Your task to perform on an android device: Open Reddit.com Image 0: 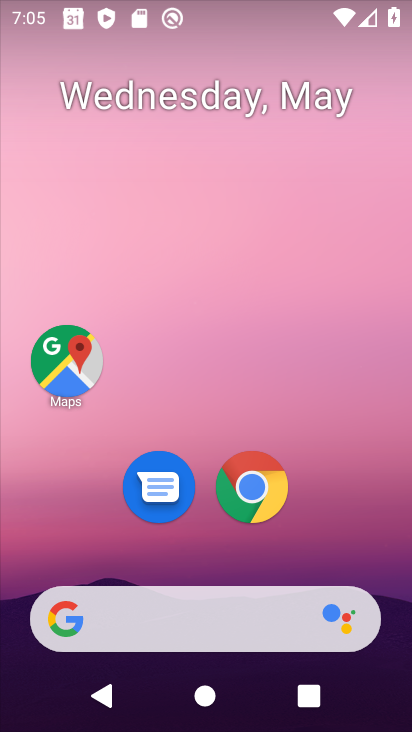
Step 0: drag from (325, 527) to (401, 23)
Your task to perform on an android device: Open Reddit.com Image 1: 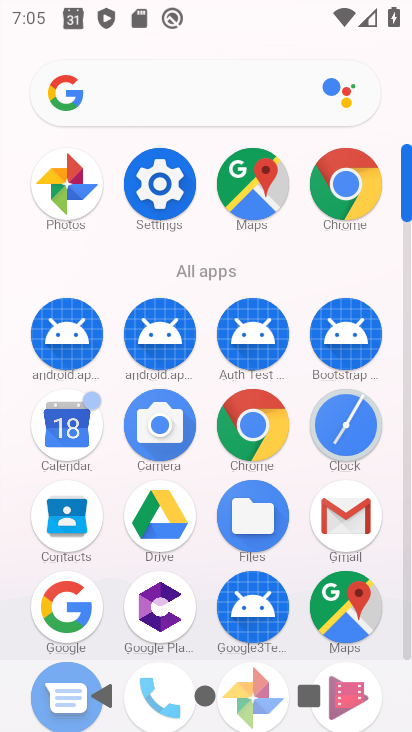
Step 1: click (373, 188)
Your task to perform on an android device: Open Reddit.com Image 2: 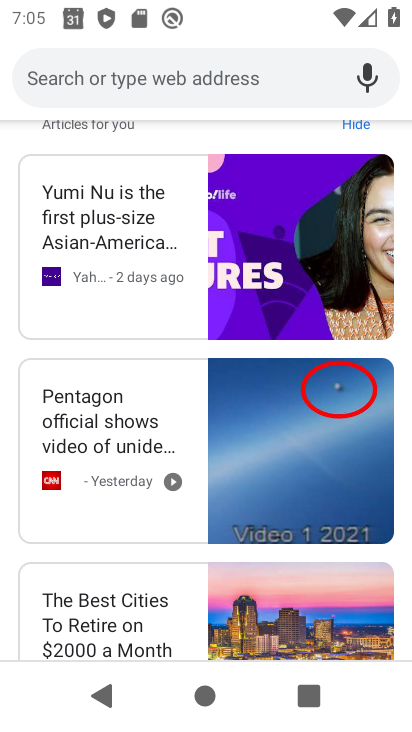
Step 2: drag from (157, 211) to (63, 554)
Your task to perform on an android device: Open Reddit.com Image 3: 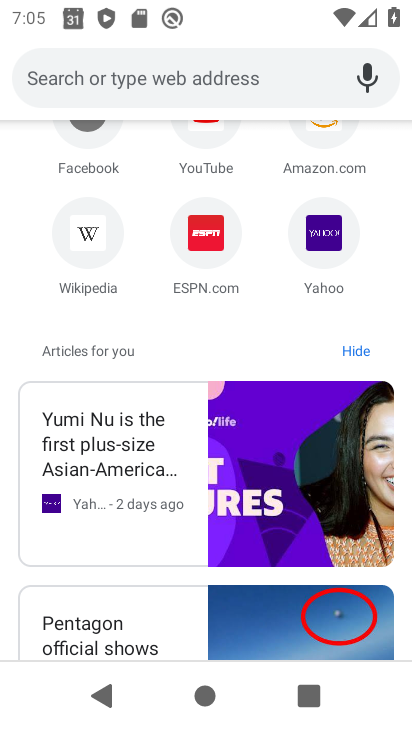
Step 3: drag from (69, 418) to (2, 579)
Your task to perform on an android device: Open Reddit.com Image 4: 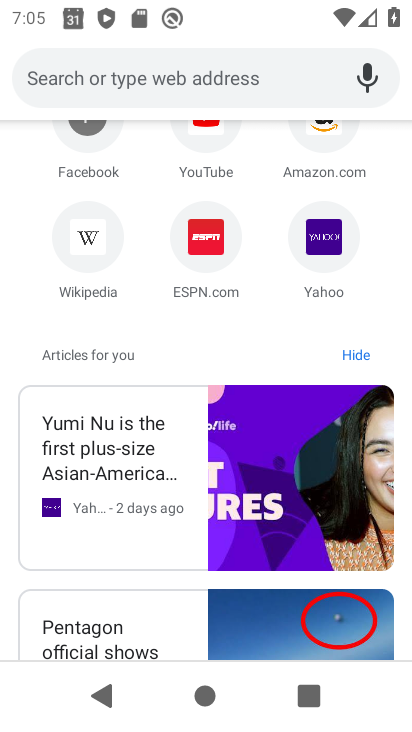
Step 4: drag from (39, 463) to (32, 601)
Your task to perform on an android device: Open Reddit.com Image 5: 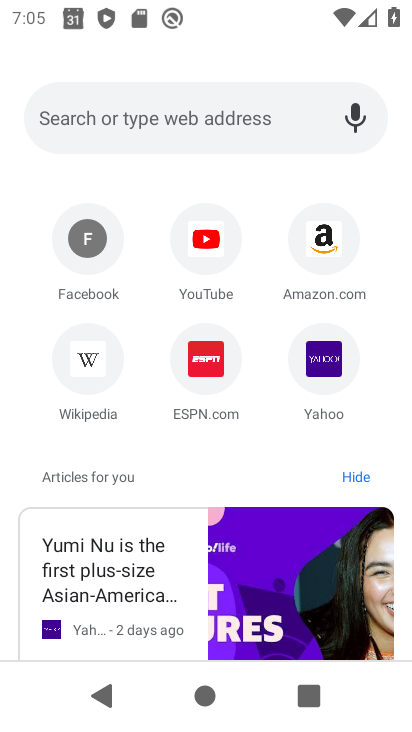
Step 5: click (193, 138)
Your task to perform on an android device: Open Reddit.com Image 6: 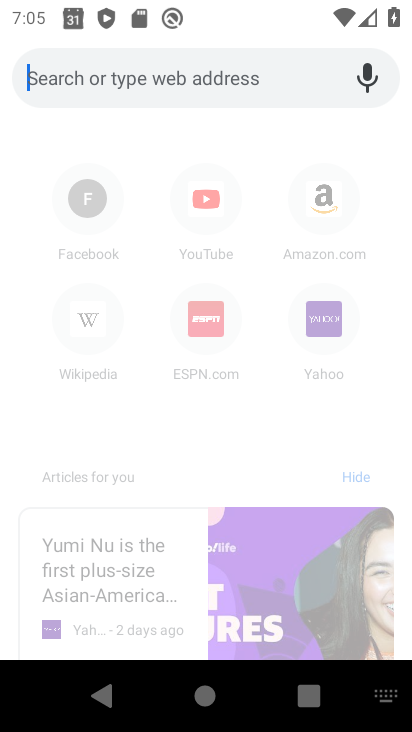
Step 6: type "reddit"
Your task to perform on an android device: Open Reddit.com Image 7: 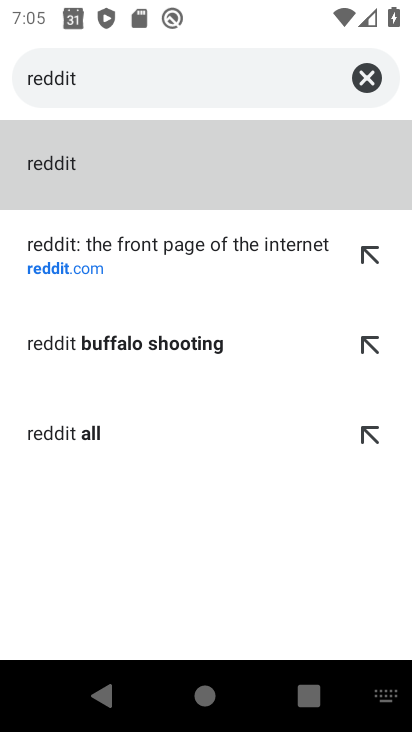
Step 7: click (40, 255)
Your task to perform on an android device: Open Reddit.com Image 8: 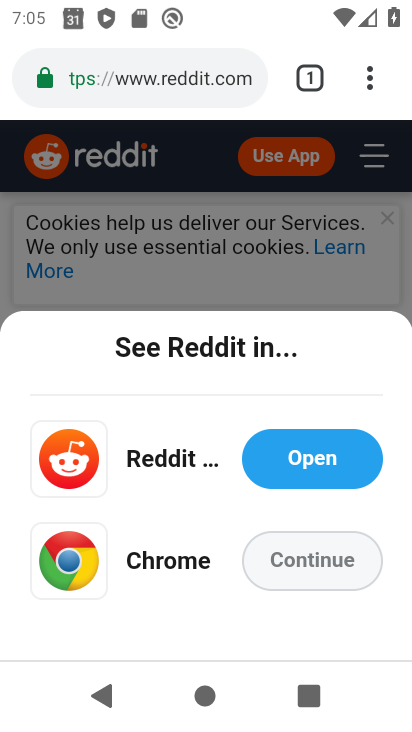
Step 8: task complete